Your task to perform on an android device: toggle data saver in the chrome app Image 0: 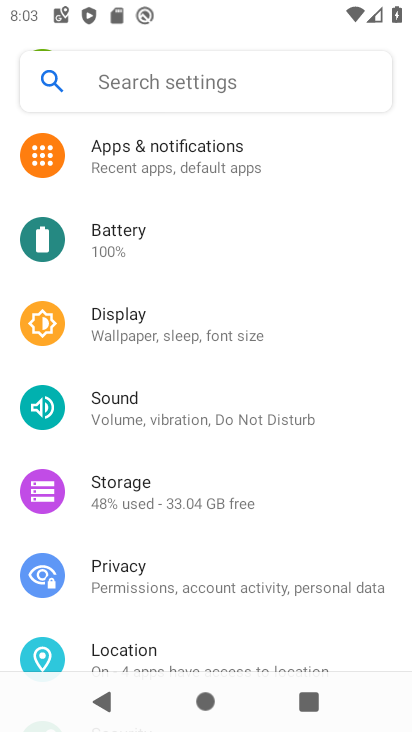
Step 0: press home button
Your task to perform on an android device: toggle data saver in the chrome app Image 1: 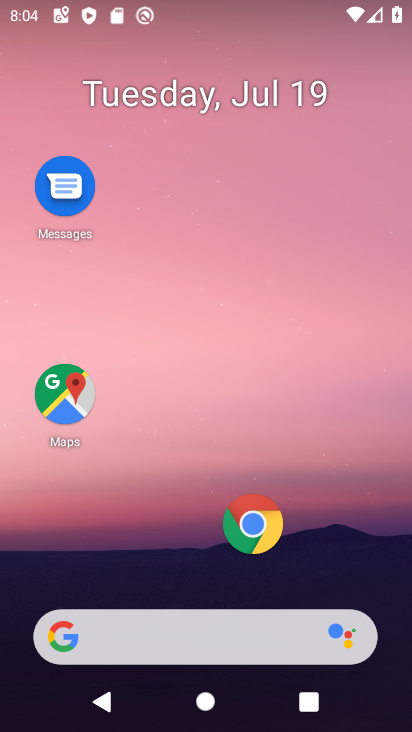
Step 1: click (271, 523)
Your task to perform on an android device: toggle data saver in the chrome app Image 2: 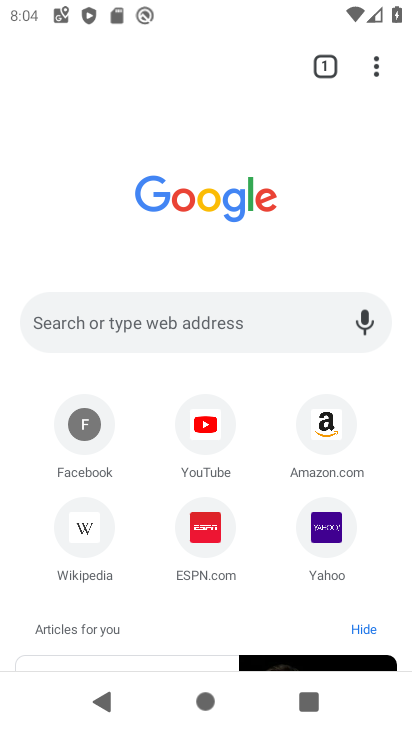
Step 2: click (374, 65)
Your task to perform on an android device: toggle data saver in the chrome app Image 3: 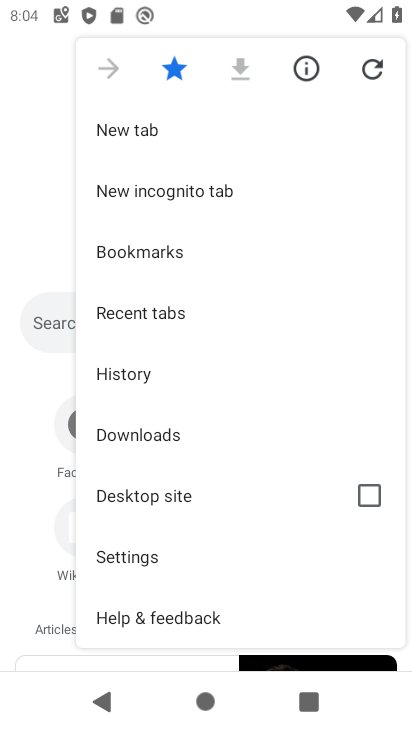
Step 3: click (145, 561)
Your task to perform on an android device: toggle data saver in the chrome app Image 4: 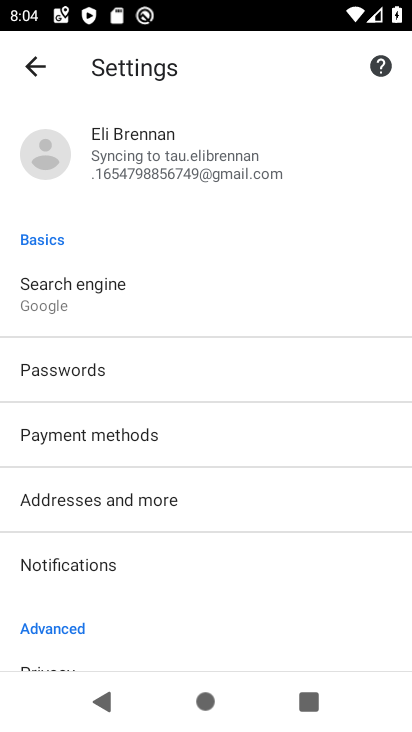
Step 4: drag from (141, 558) to (125, 188)
Your task to perform on an android device: toggle data saver in the chrome app Image 5: 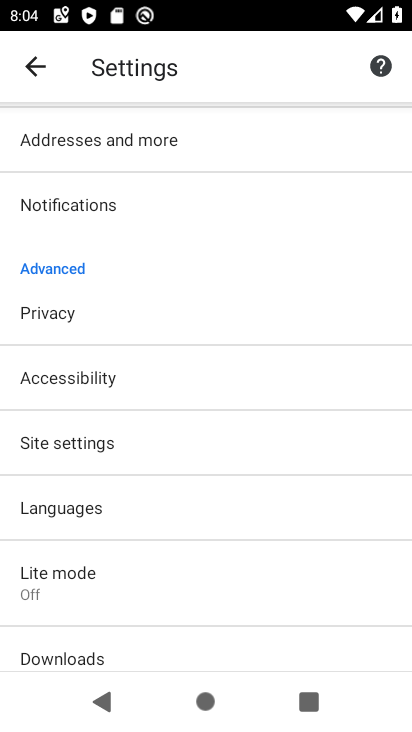
Step 5: click (47, 565)
Your task to perform on an android device: toggle data saver in the chrome app Image 6: 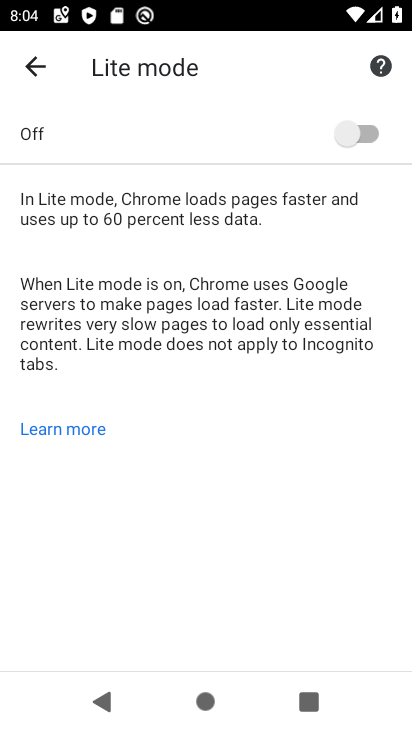
Step 6: click (341, 135)
Your task to perform on an android device: toggle data saver in the chrome app Image 7: 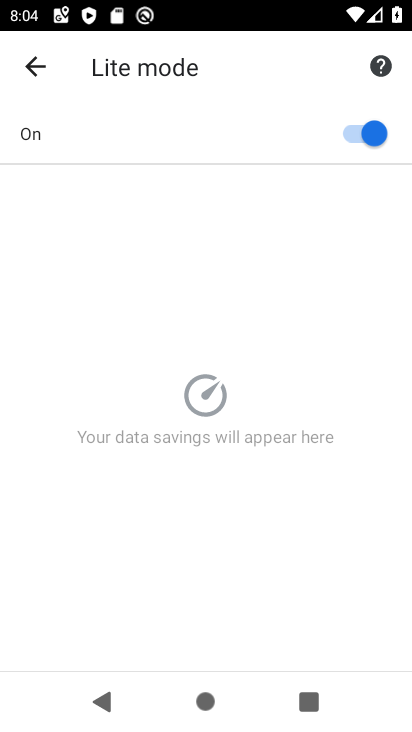
Step 7: task complete